Your task to perform on an android device: check android version Image 0: 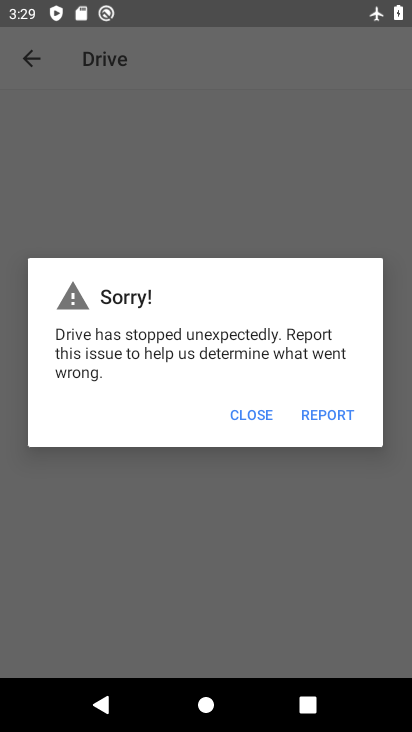
Step 0: press home button
Your task to perform on an android device: check android version Image 1: 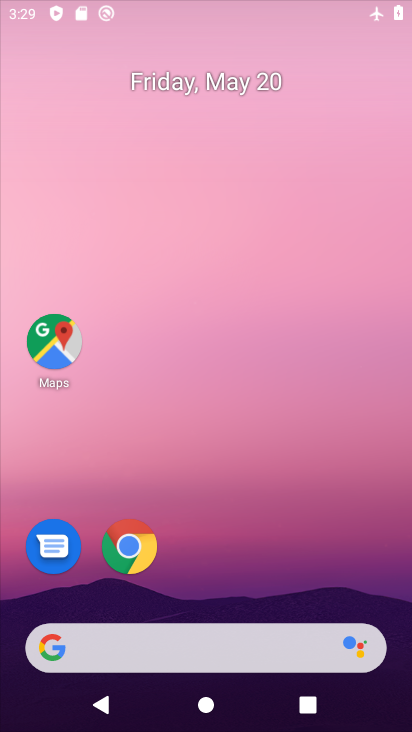
Step 1: drag from (258, 529) to (207, 15)
Your task to perform on an android device: check android version Image 2: 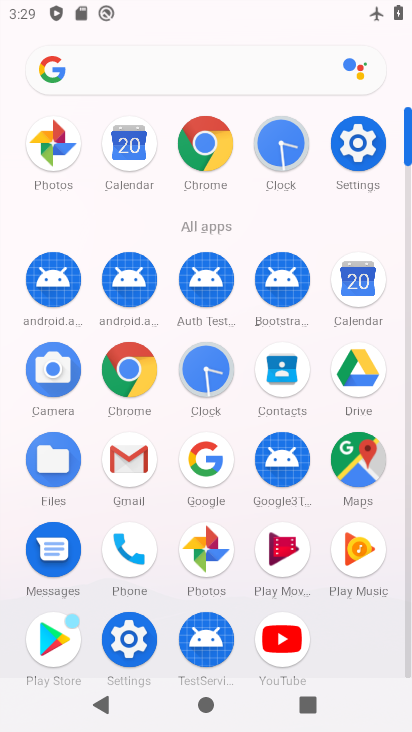
Step 2: click (371, 135)
Your task to perform on an android device: check android version Image 3: 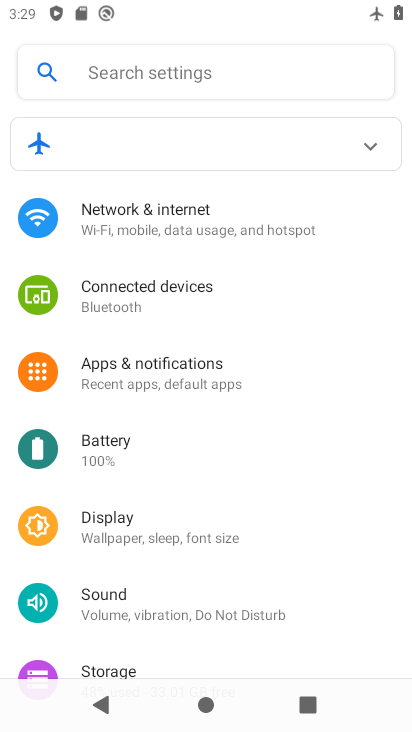
Step 3: drag from (180, 552) to (366, 54)
Your task to perform on an android device: check android version Image 4: 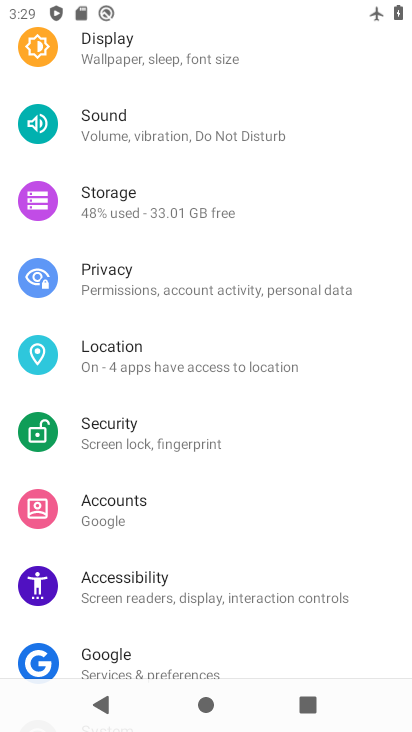
Step 4: drag from (160, 499) to (393, 118)
Your task to perform on an android device: check android version Image 5: 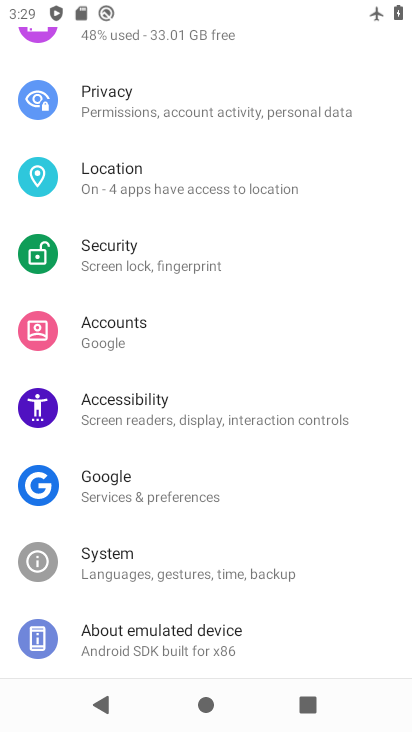
Step 5: click (175, 647)
Your task to perform on an android device: check android version Image 6: 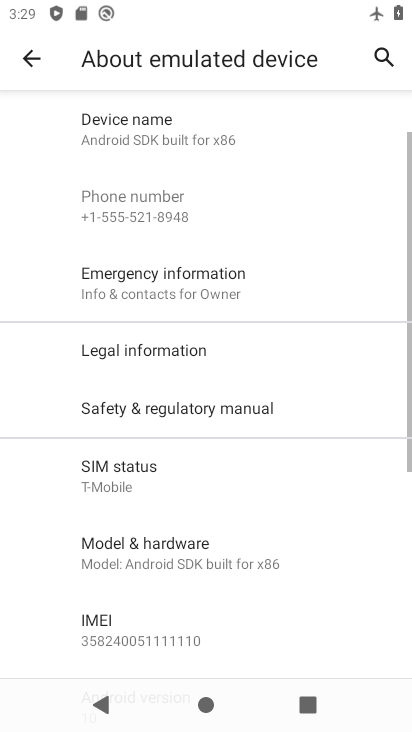
Step 6: drag from (211, 553) to (309, 67)
Your task to perform on an android device: check android version Image 7: 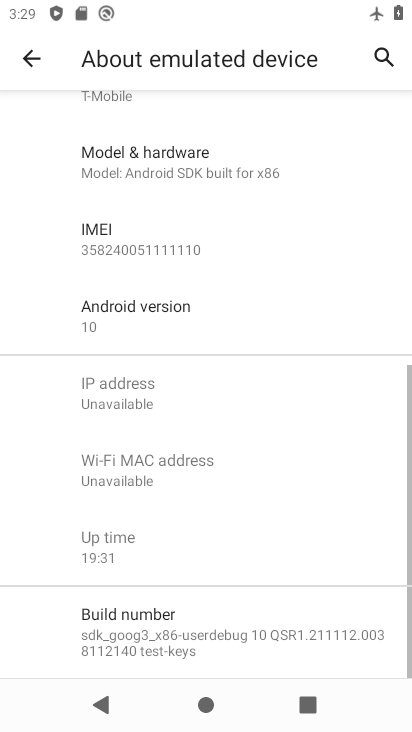
Step 7: click (182, 324)
Your task to perform on an android device: check android version Image 8: 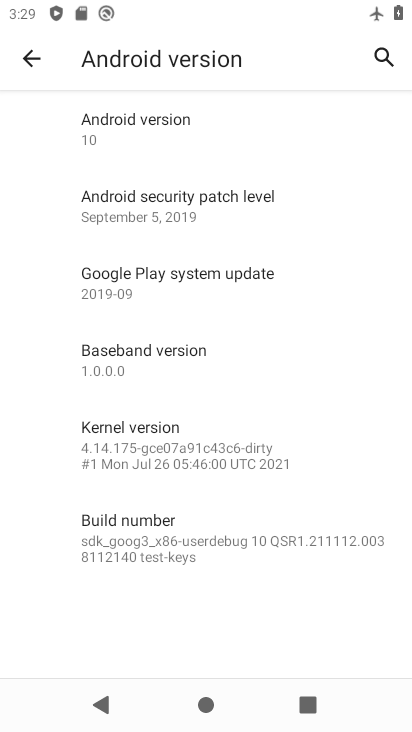
Step 8: click (140, 164)
Your task to perform on an android device: check android version Image 9: 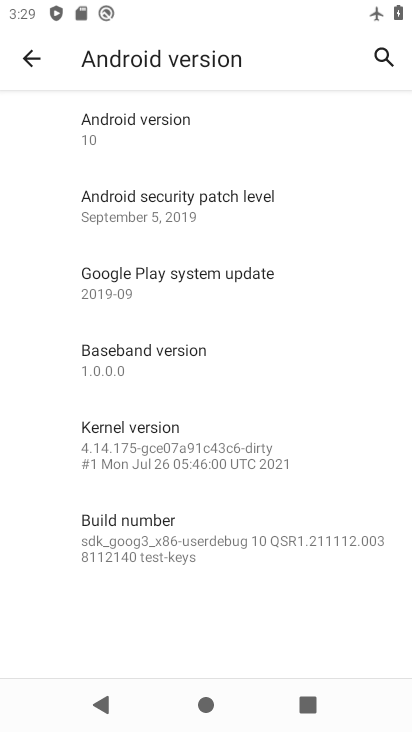
Step 9: task complete